Your task to perform on an android device: Open Android settings Image 0: 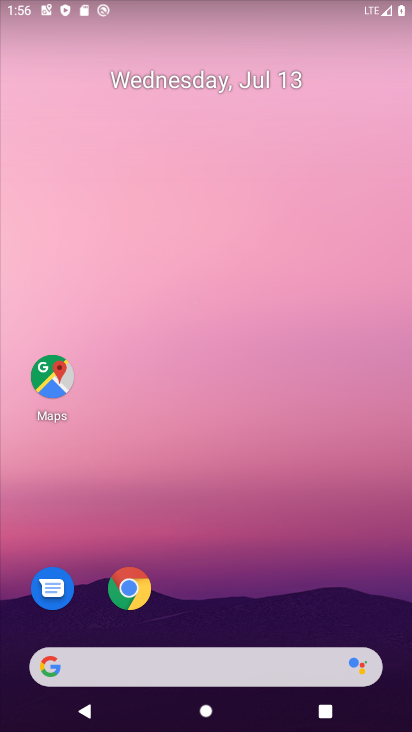
Step 0: drag from (388, 694) to (374, 281)
Your task to perform on an android device: Open Android settings Image 1: 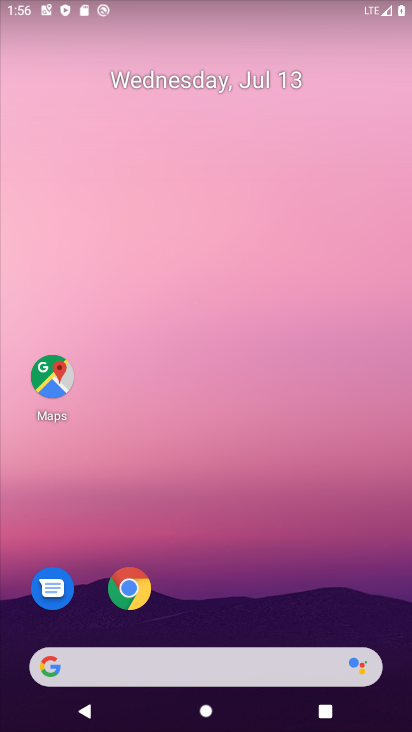
Step 1: click (308, 109)
Your task to perform on an android device: Open Android settings Image 2: 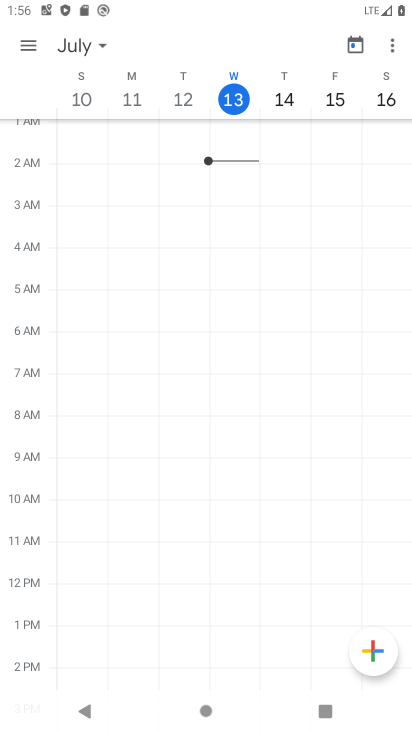
Step 2: press home button
Your task to perform on an android device: Open Android settings Image 3: 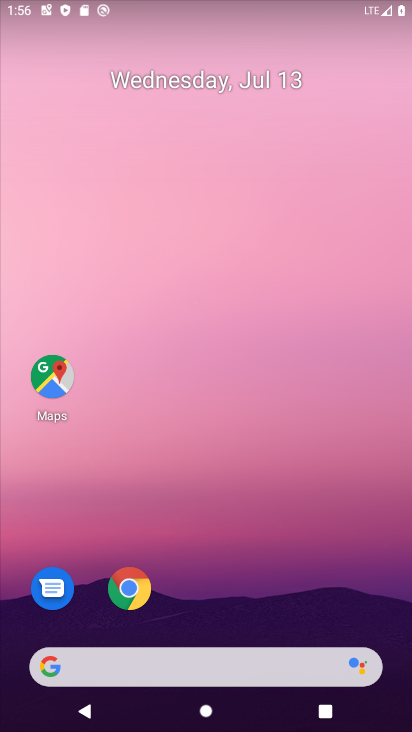
Step 3: drag from (403, 698) to (295, 81)
Your task to perform on an android device: Open Android settings Image 4: 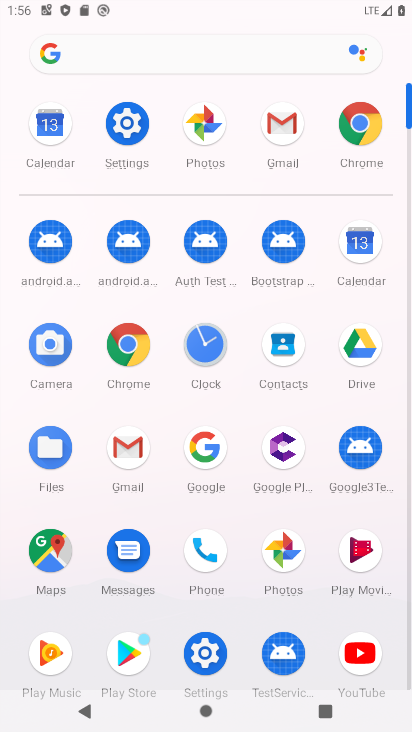
Step 4: click (128, 124)
Your task to perform on an android device: Open Android settings Image 5: 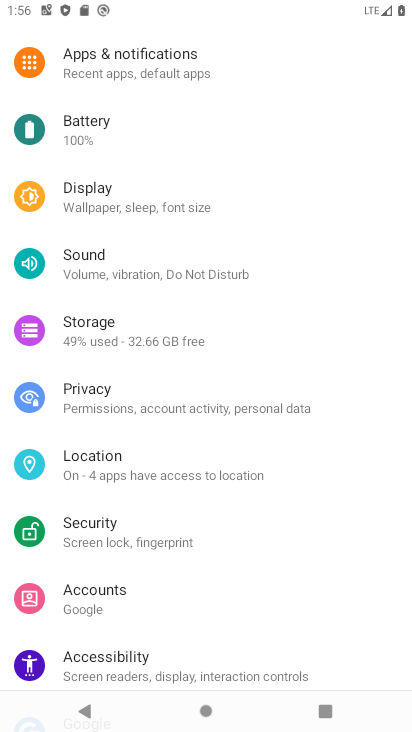
Step 5: task complete